Your task to perform on an android device: star an email in the gmail app Image 0: 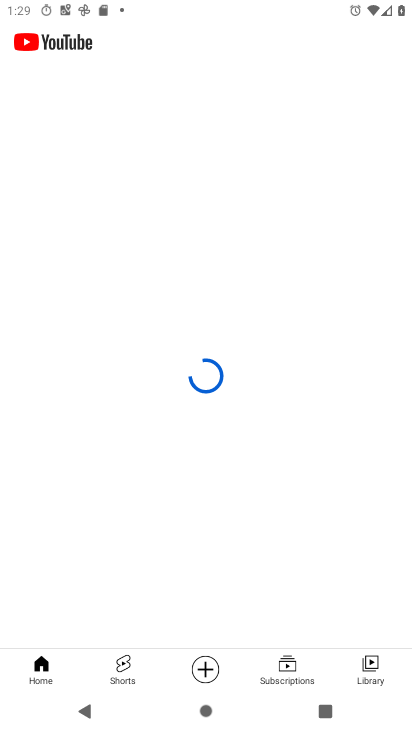
Step 0: click (271, 62)
Your task to perform on an android device: star an email in the gmail app Image 1: 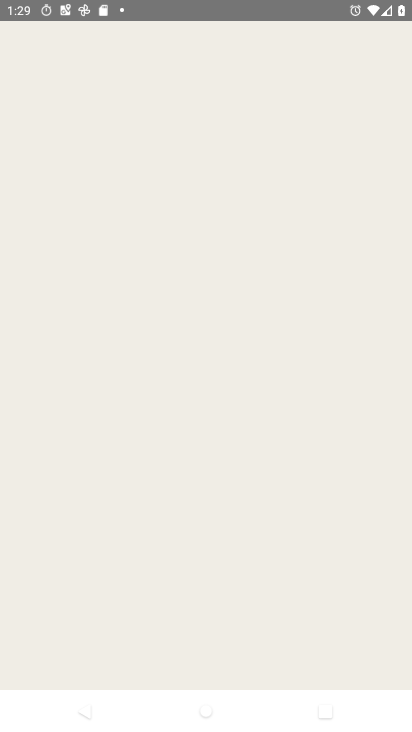
Step 1: press home button
Your task to perform on an android device: star an email in the gmail app Image 2: 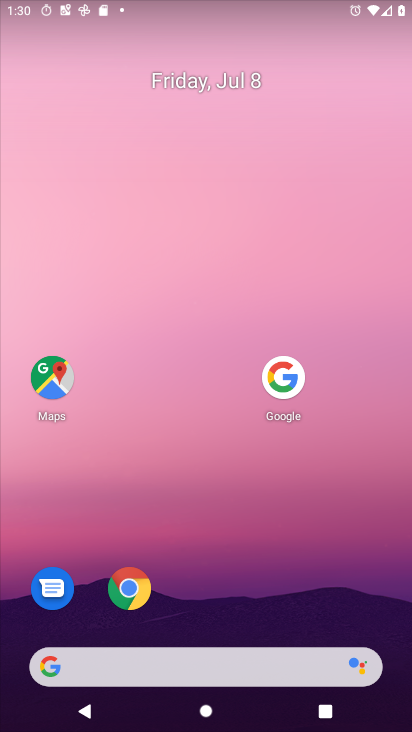
Step 2: drag from (137, 668) to (259, 175)
Your task to perform on an android device: star an email in the gmail app Image 3: 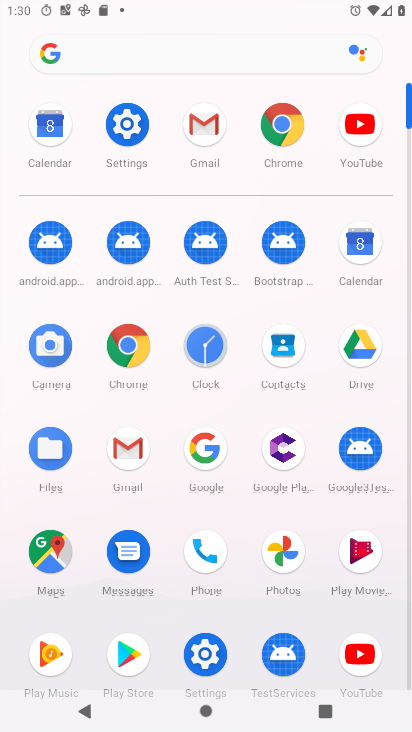
Step 3: click (204, 123)
Your task to perform on an android device: star an email in the gmail app Image 4: 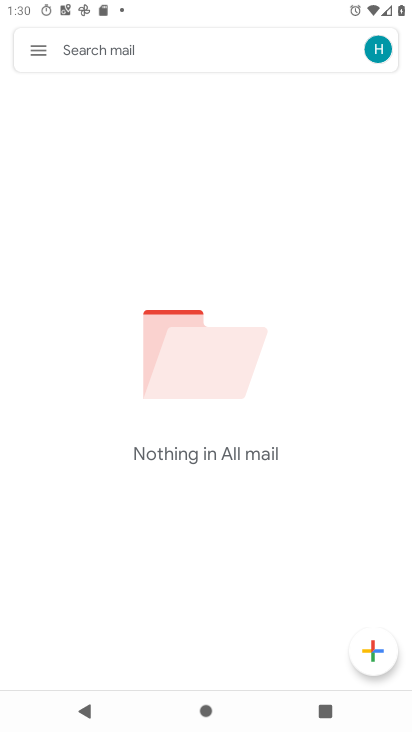
Step 4: task complete